Your task to perform on an android device: Show me popular games on the Play Store Image 0: 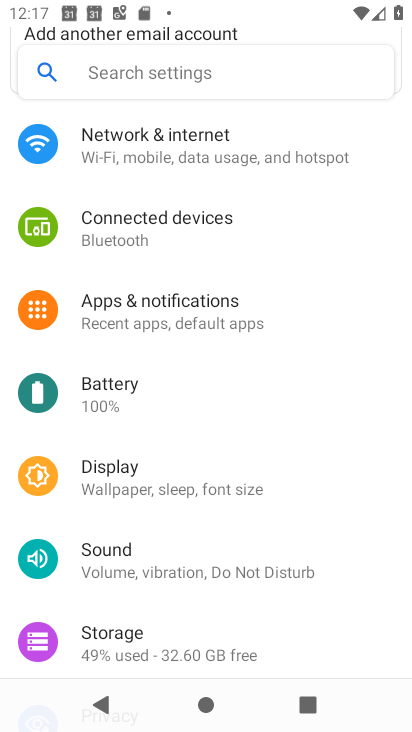
Step 0: press home button
Your task to perform on an android device: Show me popular games on the Play Store Image 1: 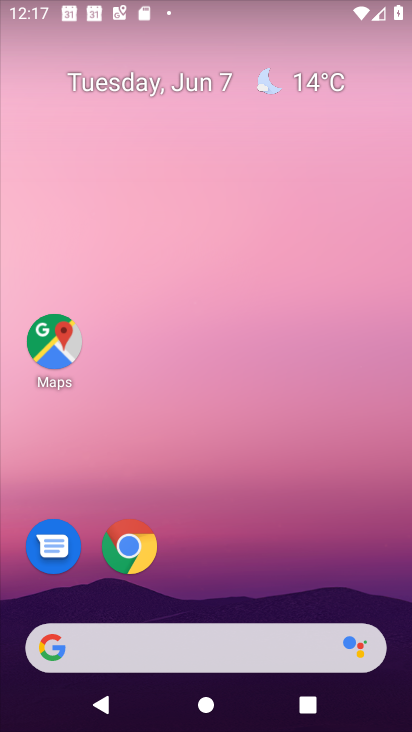
Step 1: drag from (197, 564) to (392, 121)
Your task to perform on an android device: Show me popular games on the Play Store Image 2: 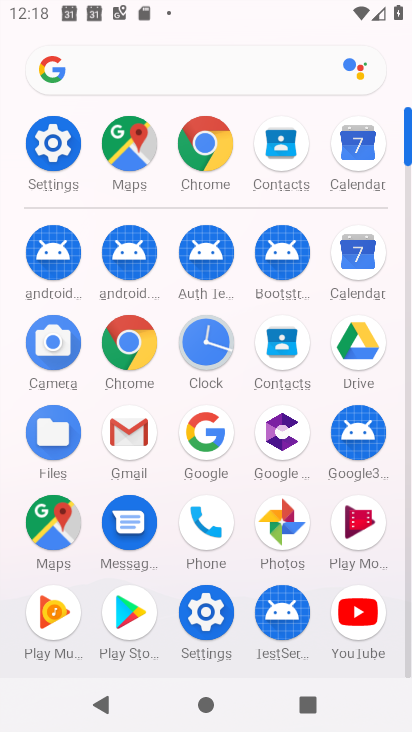
Step 2: click (116, 615)
Your task to perform on an android device: Show me popular games on the Play Store Image 3: 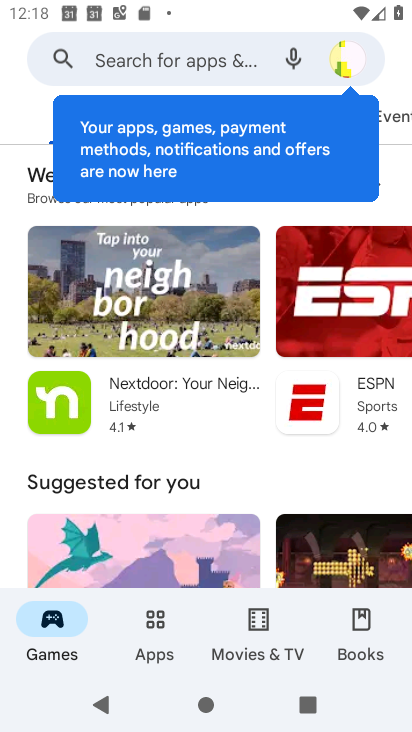
Step 3: click (25, 130)
Your task to perform on an android device: Show me popular games on the Play Store Image 4: 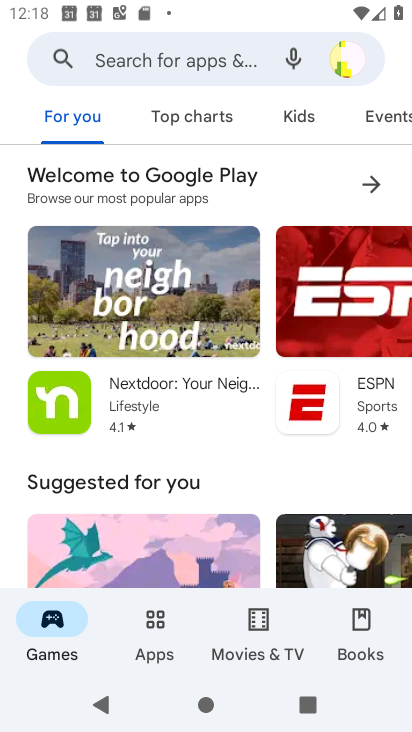
Step 4: click (184, 124)
Your task to perform on an android device: Show me popular games on the Play Store Image 5: 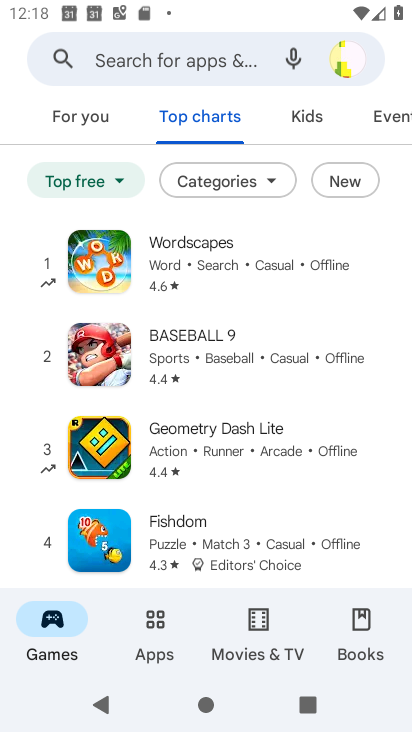
Step 5: task complete